Your task to perform on an android device: turn off translation in the chrome app Image 0: 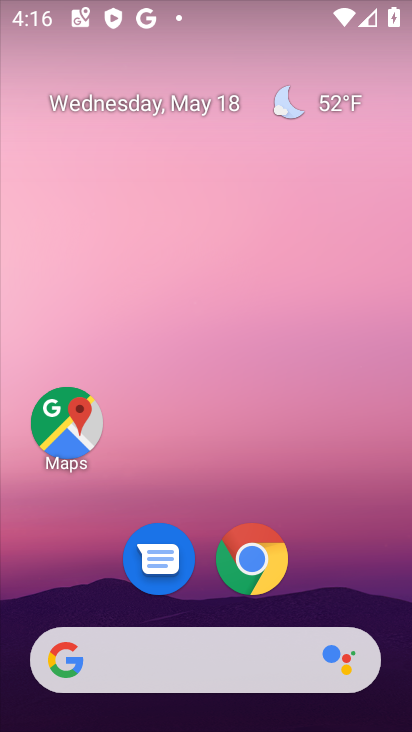
Step 0: drag from (228, 608) to (303, 100)
Your task to perform on an android device: turn off translation in the chrome app Image 1: 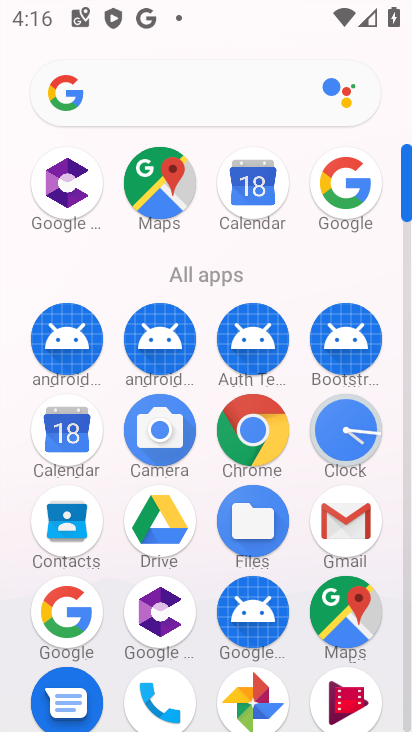
Step 1: click (259, 436)
Your task to perform on an android device: turn off translation in the chrome app Image 2: 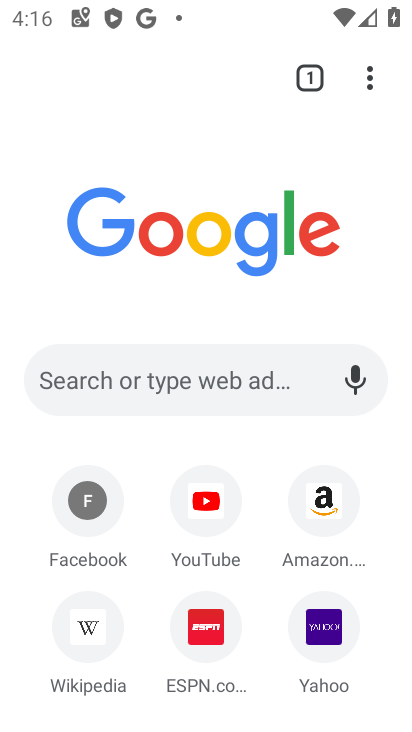
Step 2: drag from (366, 67) to (110, 650)
Your task to perform on an android device: turn off translation in the chrome app Image 3: 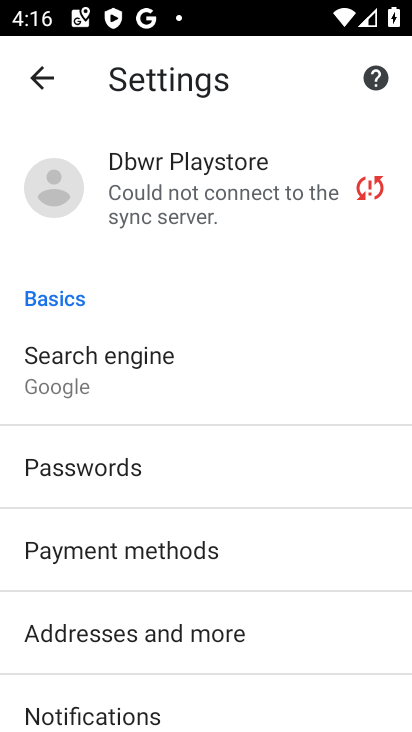
Step 3: drag from (198, 662) to (285, 189)
Your task to perform on an android device: turn off translation in the chrome app Image 4: 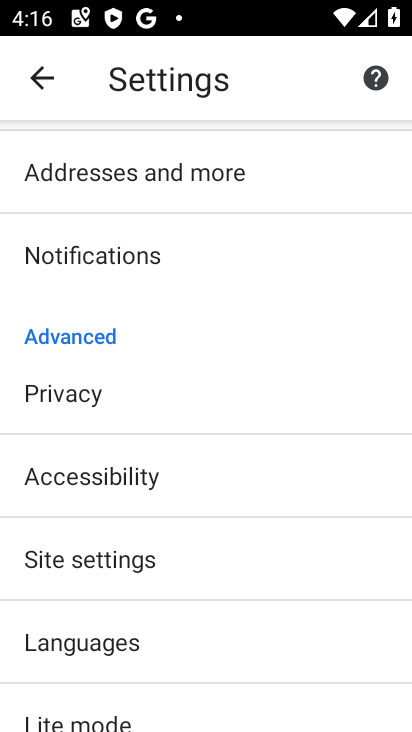
Step 4: click (88, 629)
Your task to perform on an android device: turn off translation in the chrome app Image 5: 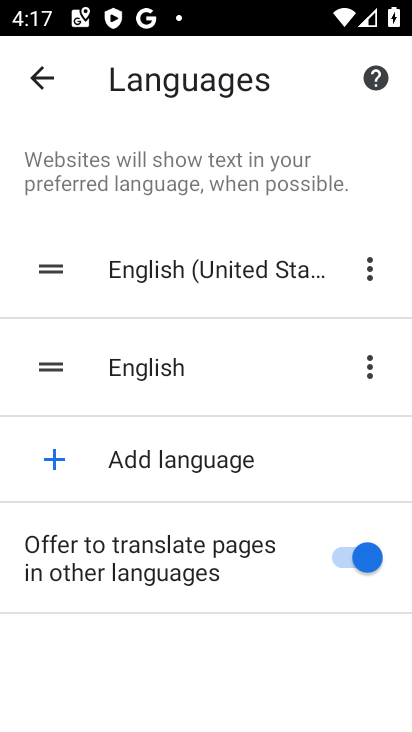
Step 5: click (369, 559)
Your task to perform on an android device: turn off translation in the chrome app Image 6: 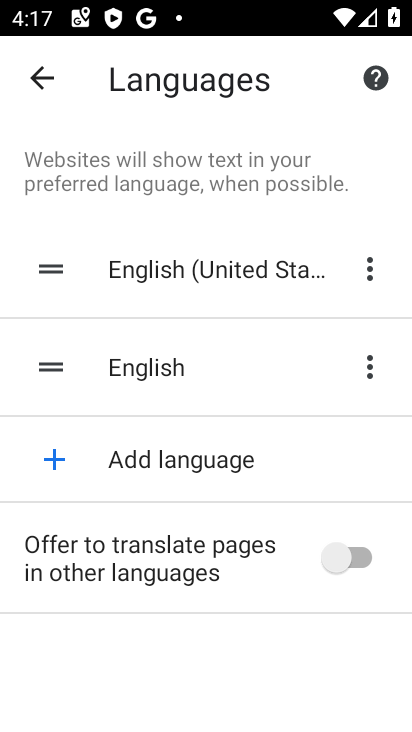
Step 6: task complete